Your task to perform on an android device: turn off airplane mode Image 0: 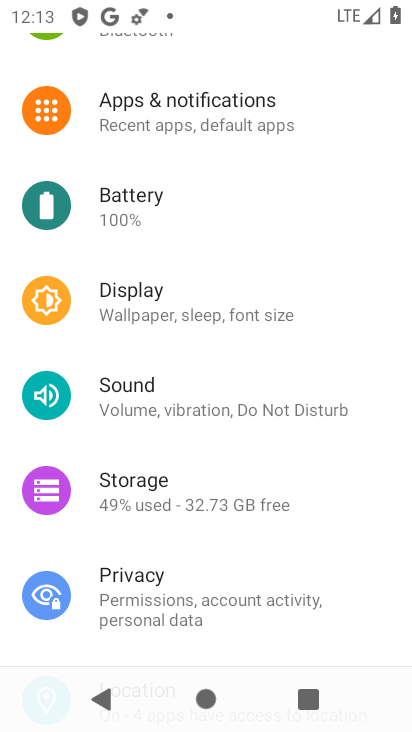
Step 0: press home button
Your task to perform on an android device: turn off airplane mode Image 1: 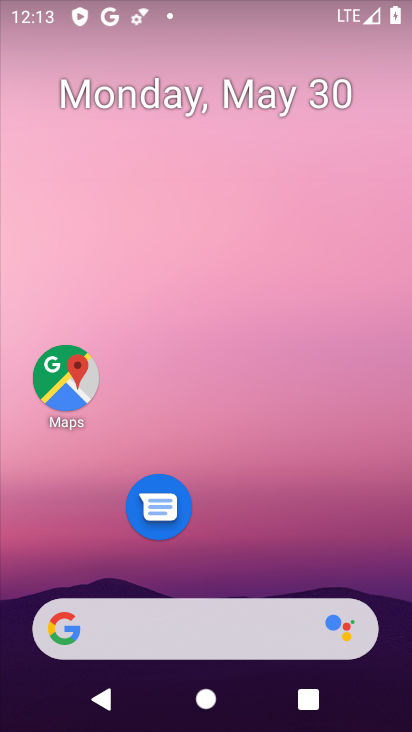
Step 1: task complete